Your task to perform on an android device: View the shopping cart on ebay. Image 0: 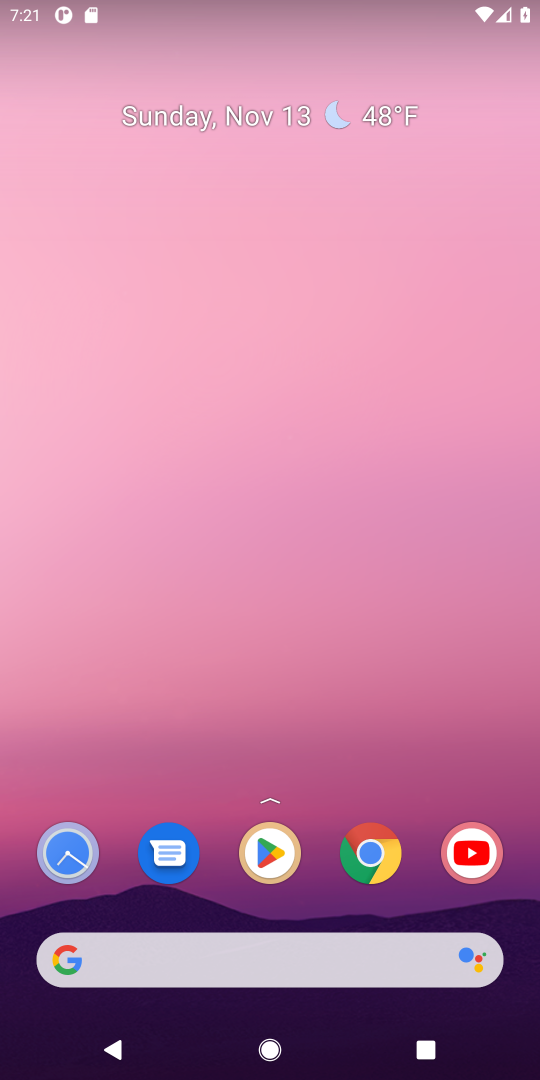
Step 0: press home button
Your task to perform on an android device: View the shopping cart on ebay. Image 1: 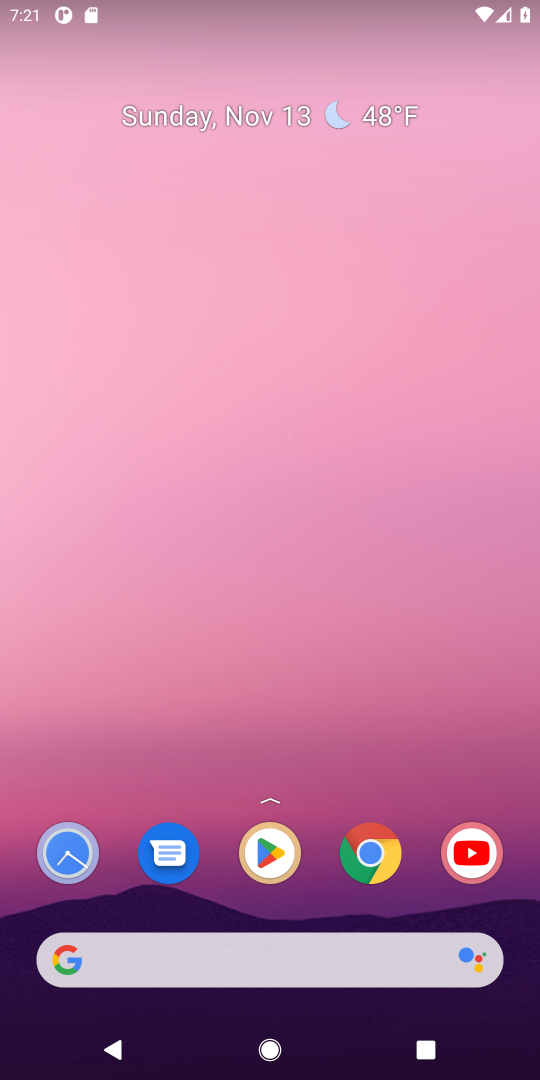
Step 1: click (103, 970)
Your task to perform on an android device: View the shopping cart on ebay. Image 2: 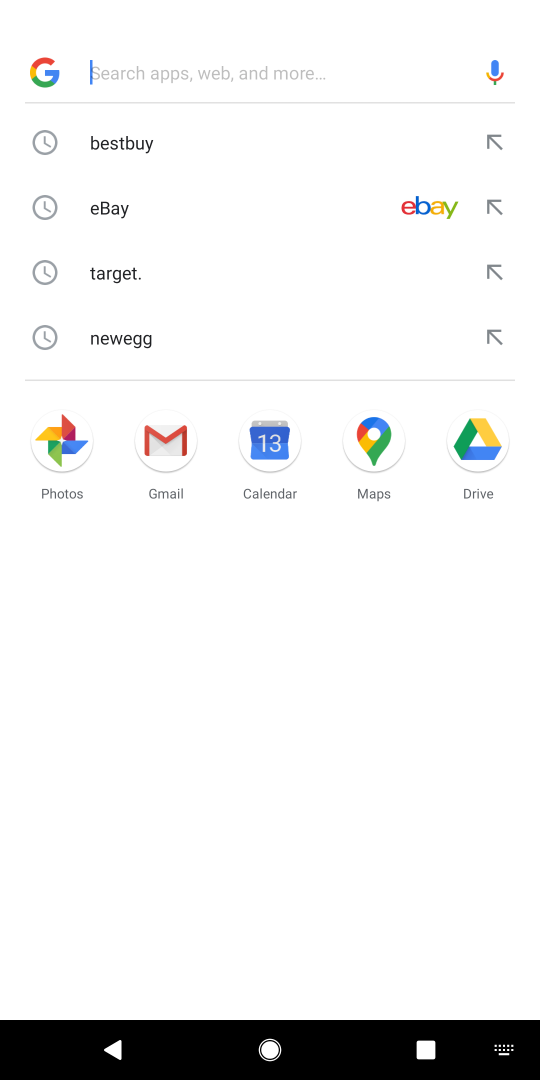
Step 2: click (118, 209)
Your task to perform on an android device: View the shopping cart on ebay. Image 3: 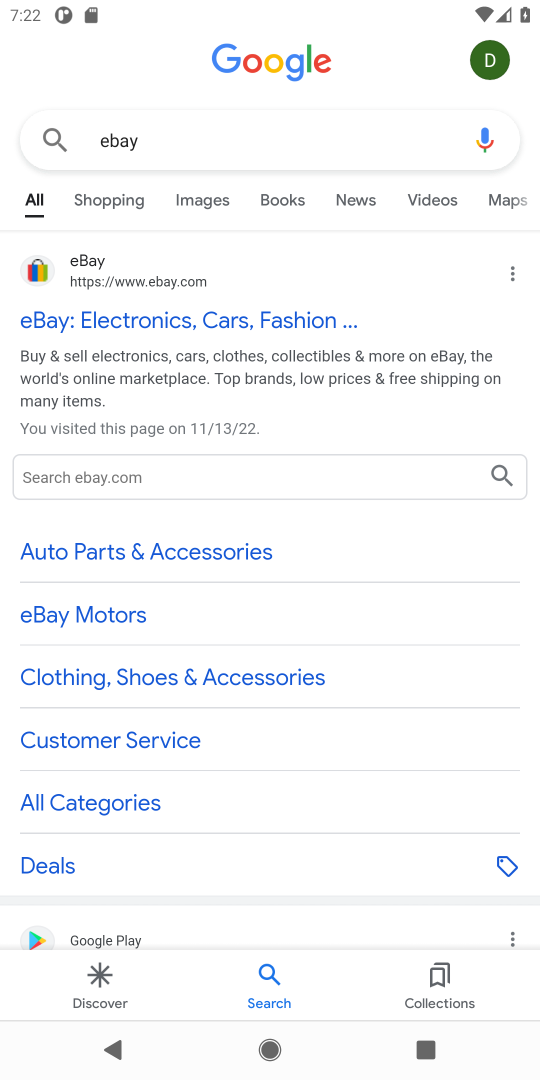
Step 3: click (94, 320)
Your task to perform on an android device: View the shopping cart on ebay. Image 4: 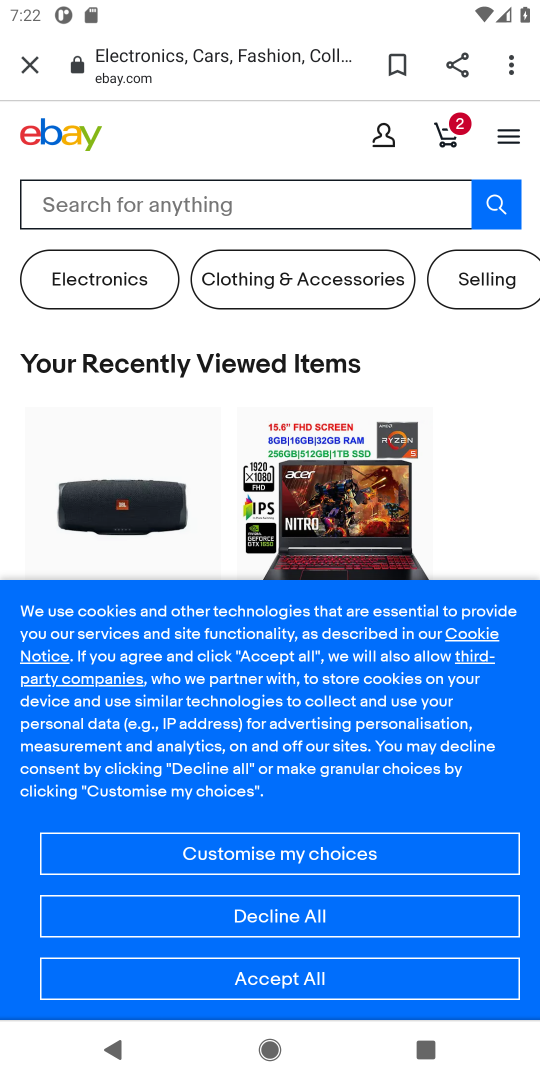
Step 4: click (450, 135)
Your task to perform on an android device: View the shopping cart on ebay. Image 5: 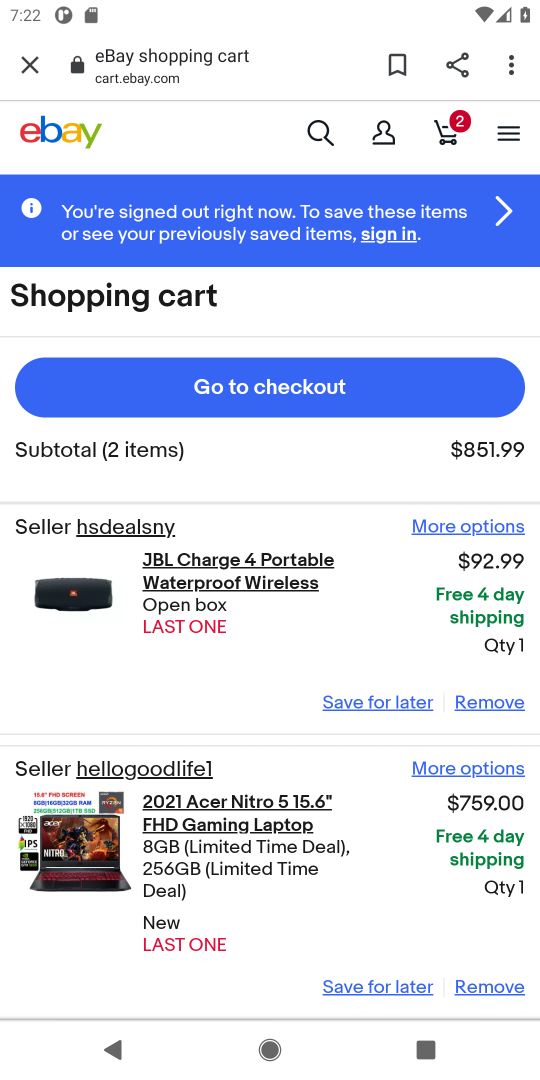
Step 5: task complete